Your task to perform on an android device: change the clock style Image 0: 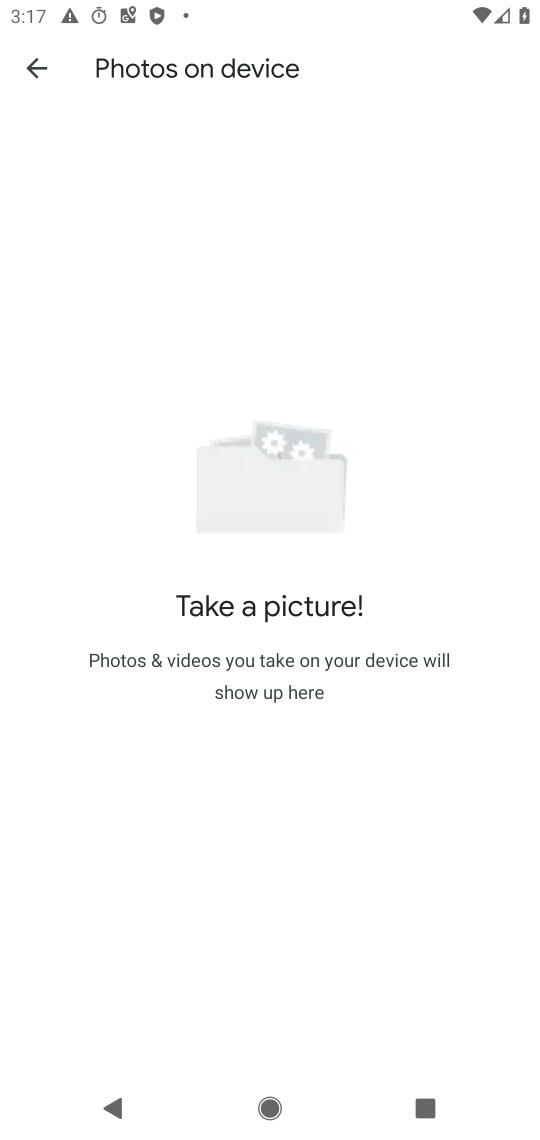
Step 0: press home button
Your task to perform on an android device: change the clock style Image 1: 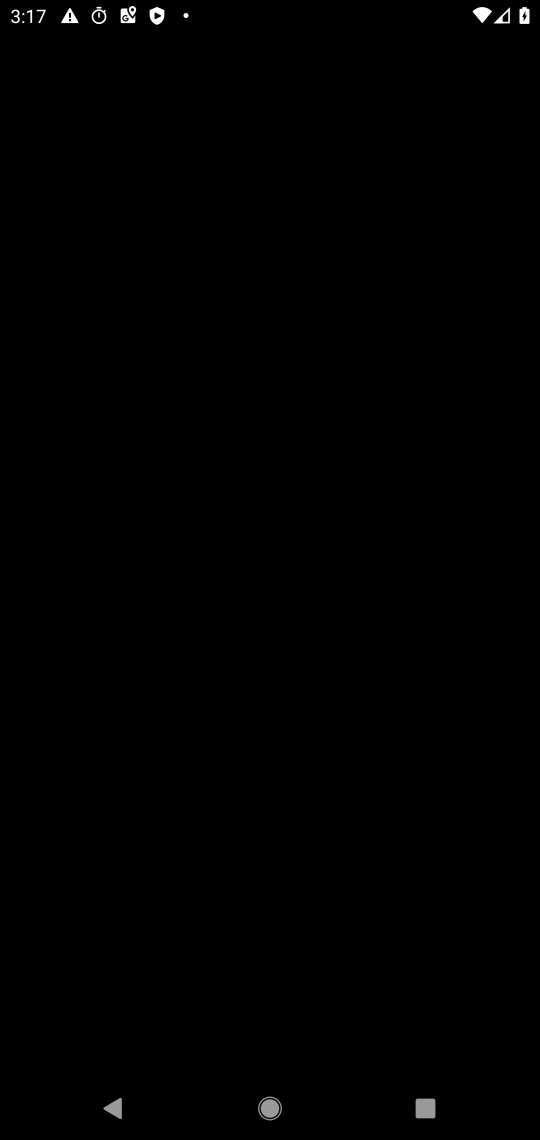
Step 1: press home button
Your task to perform on an android device: change the clock style Image 2: 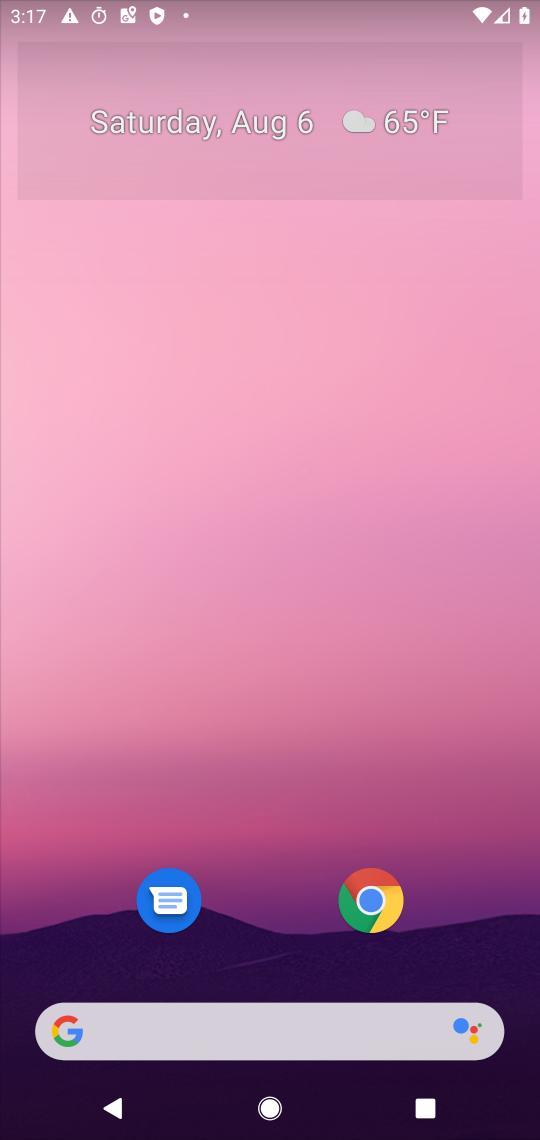
Step 2: drag from (251, 618) to (278, 147)
Your task to perform on an android device: change the clock style Image 3: 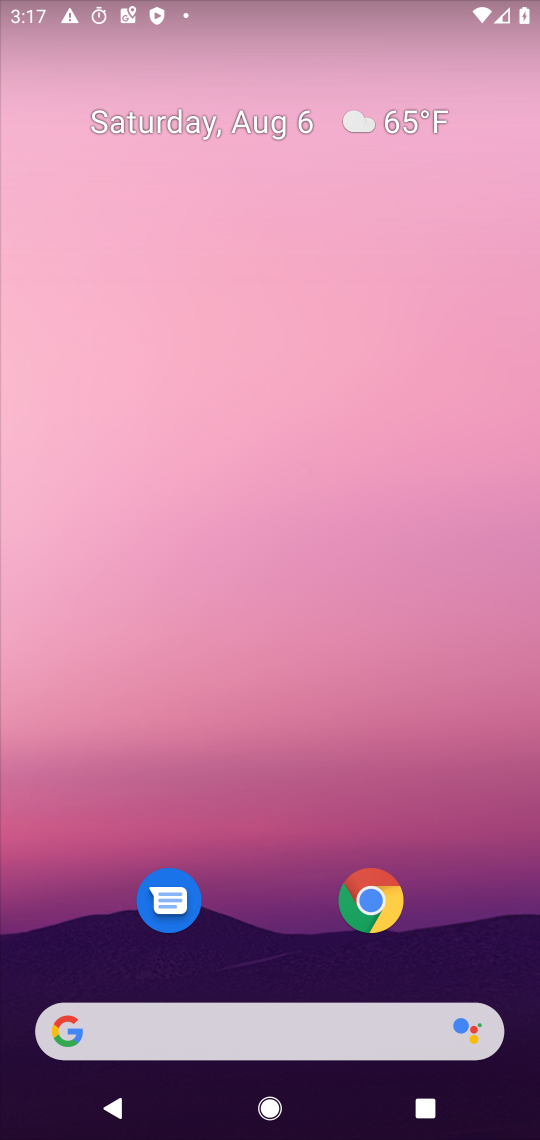
Step 3: drag from (261, 611) to (534, 420)
Your task to perform on an android device: change the clock style Image 4: 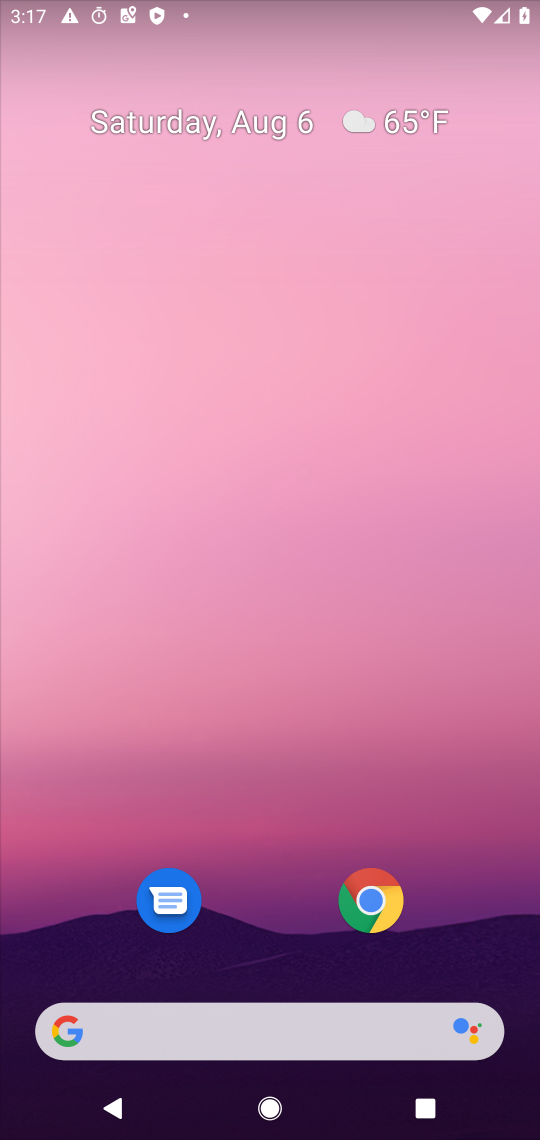
Step 4: drag from (268, 938) to (398, 6)
Your task to perform on an android device: change the clock style Image 5: 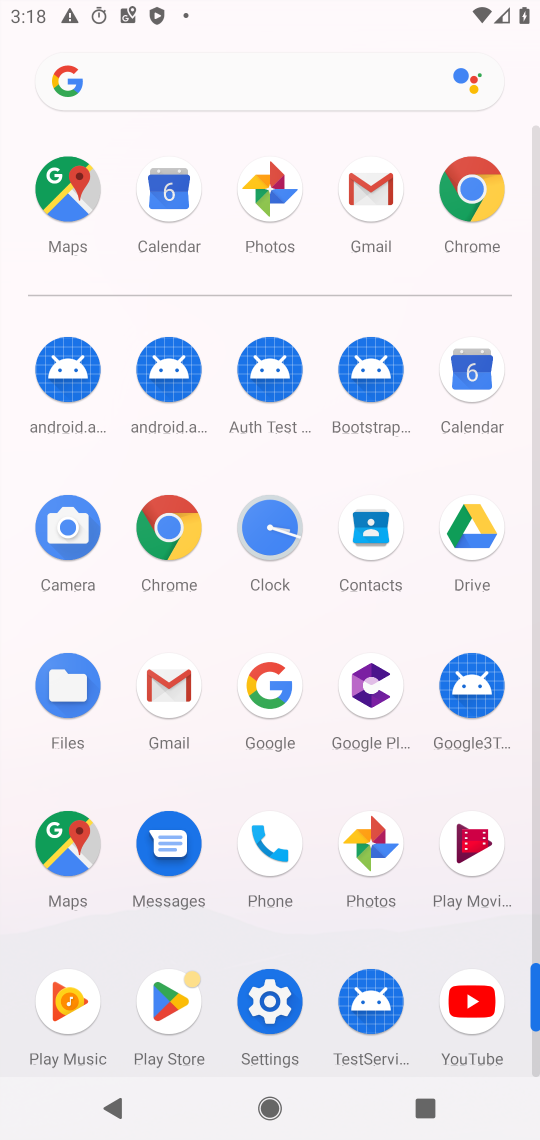
Step 5: click (263, 542)
Your task to perform on an android device: change the clock style Image 6: 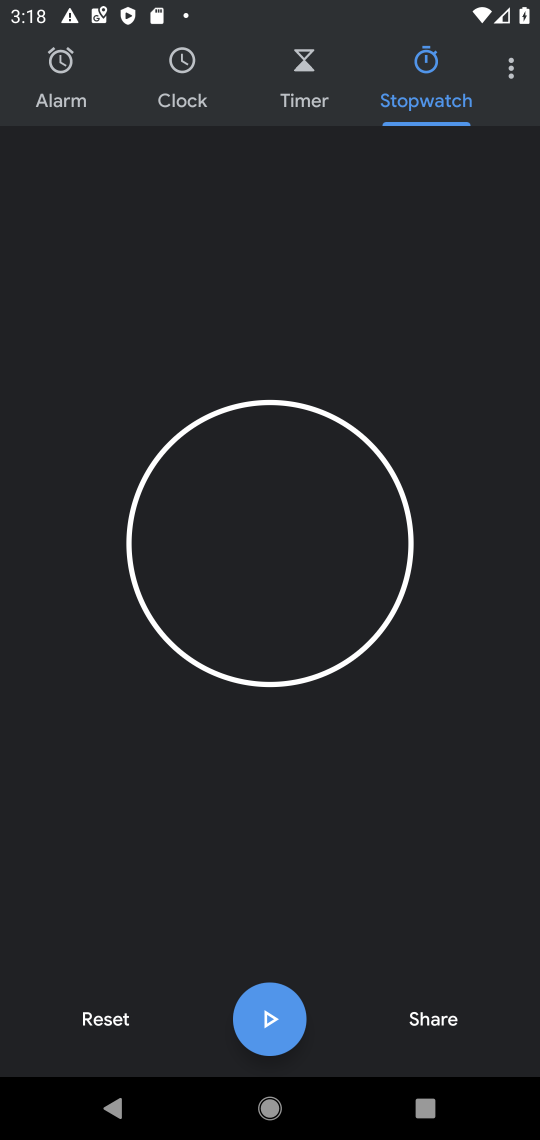
Step 6: click (506, 61)
Your task to perform on an android device: change the clock style Image 7: 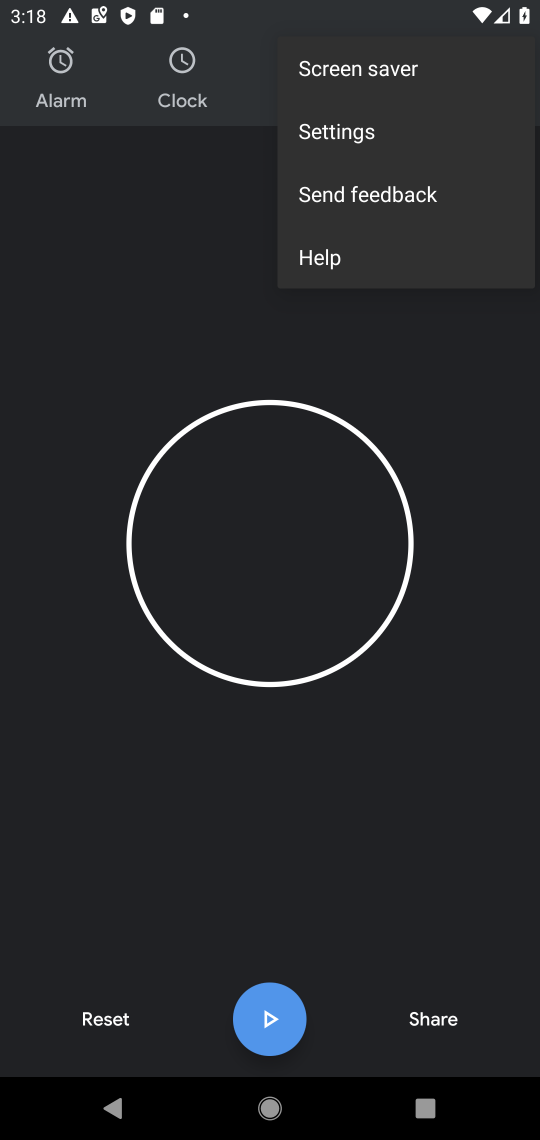
Step 7: click (379, 133)
Your task to perform on an android device: change the clock style Image 8: 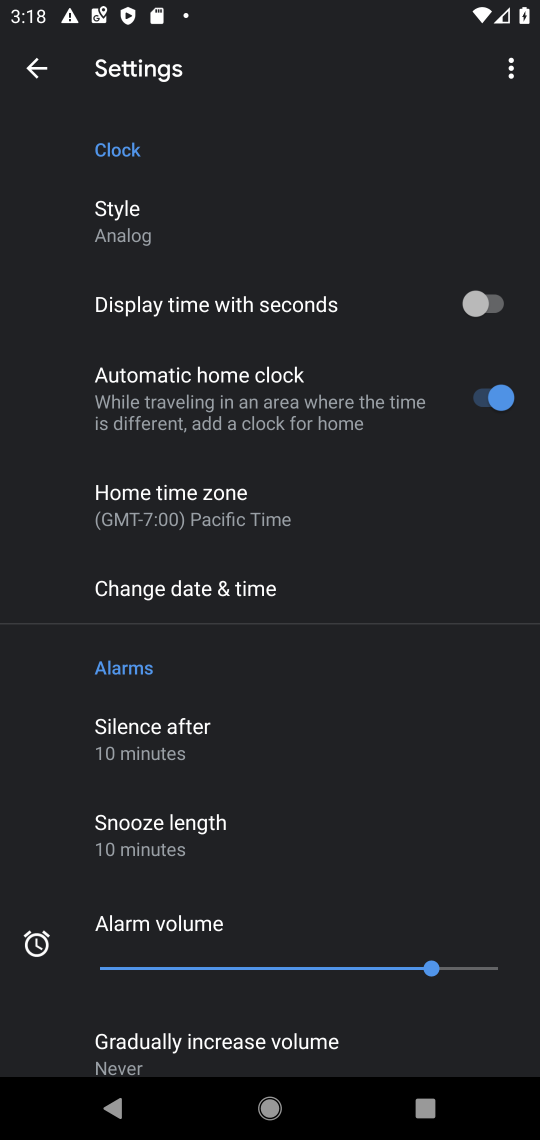
Step 8: click (134, 225)
Your task to perform on an android device: change the clock style Image 9: 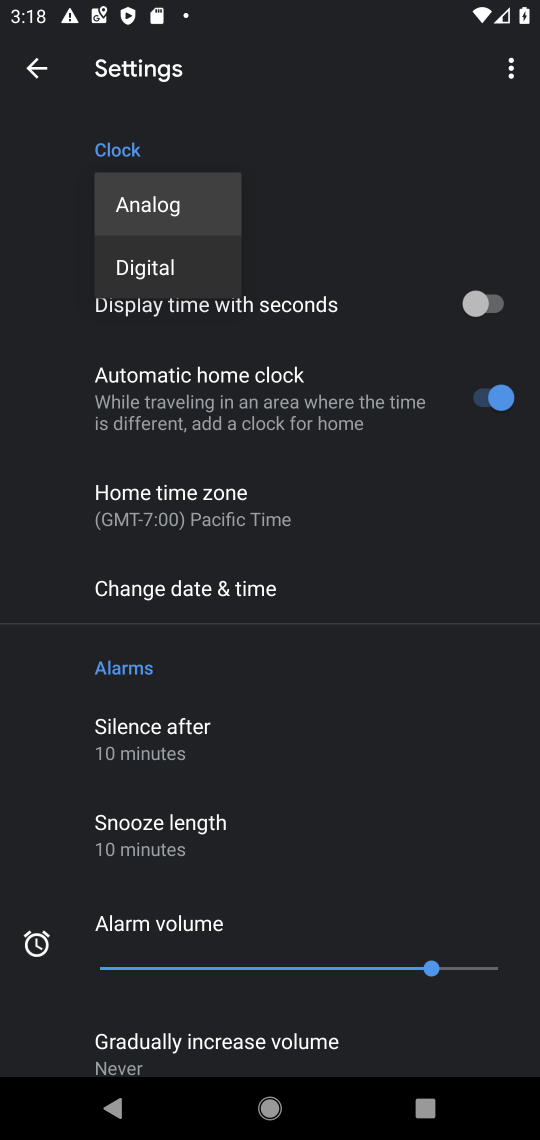
Step 9: click (181, 268)
Your task to perform on an android device: change the clock style Image 10: 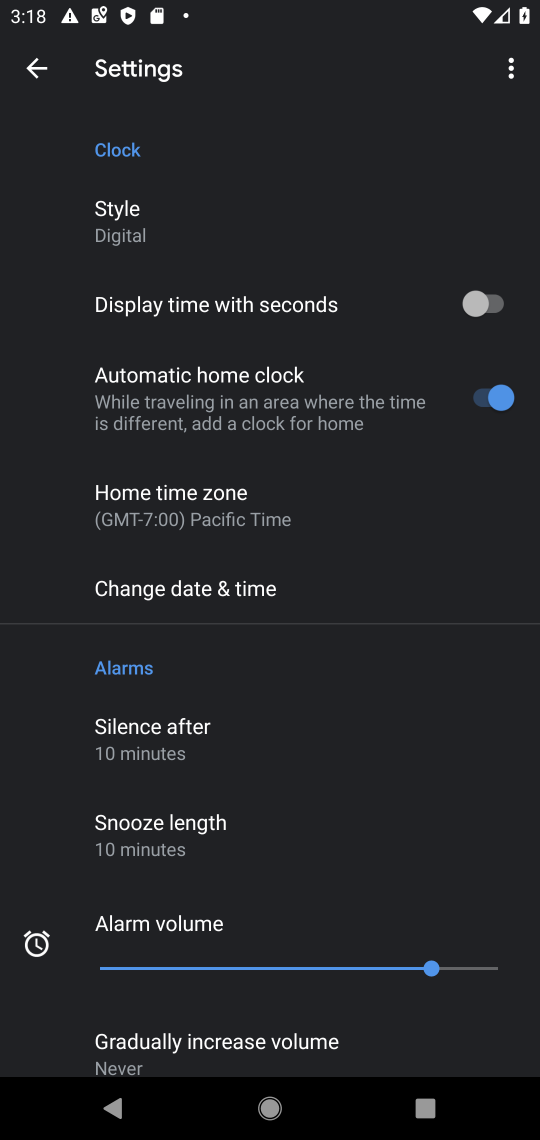
Step 10: task complete